Your task to perform on an android device: Open CNN.com Image 0: 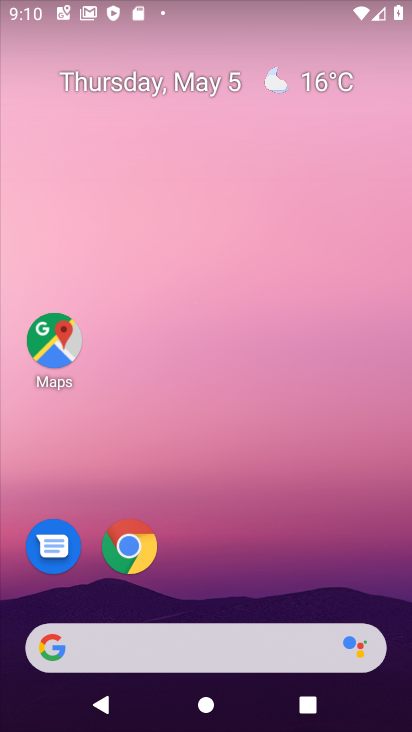
Step 0: click (122, 543)
Your task to perform on an android device: Open CNN.com Image 1: 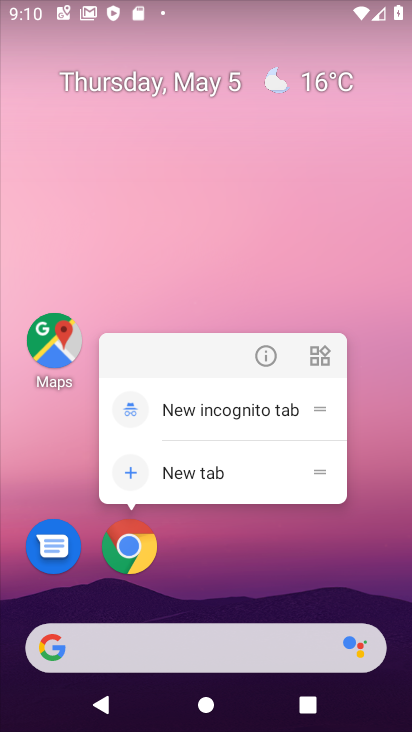
Step 1: click (144, 537)
Your task to perform on an android device: Open CNN.com Image 2: 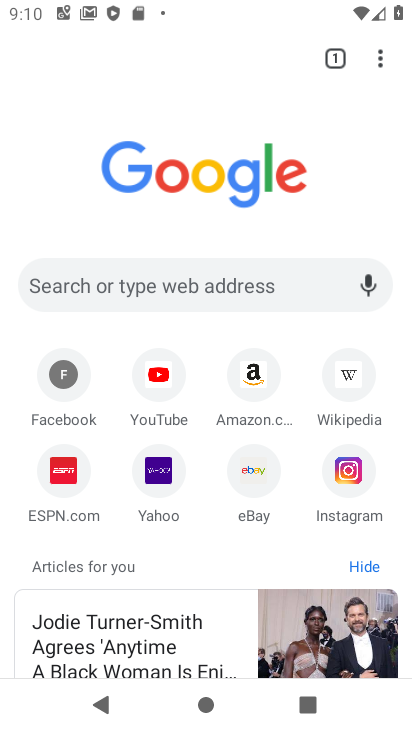
Step 2: click (163, 286)
Your task to perform on an android device: Open CNN.com Image 3: 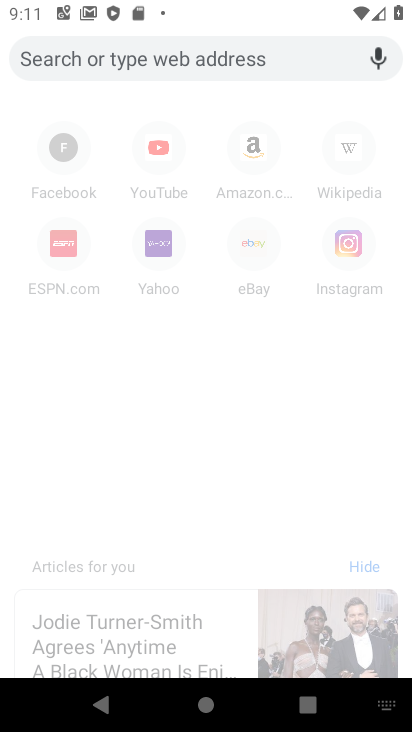
Step 3: type "CNN.com"
Your task to perform on an android device: Open CNN.com Image 4: 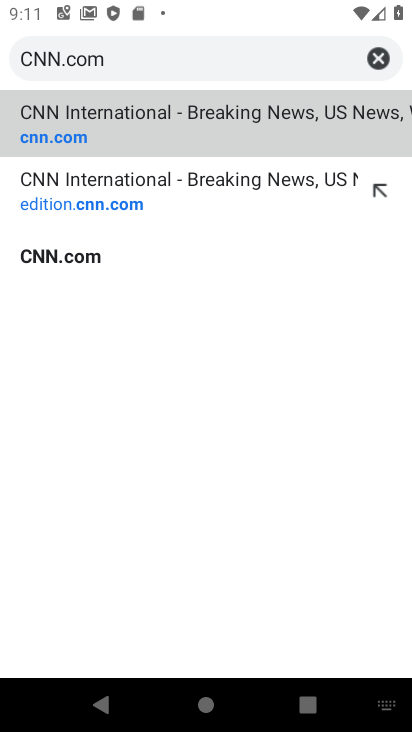
Step 4: click (81, 129)
Your task to perform on an android device: Open CNN.com Image 5: 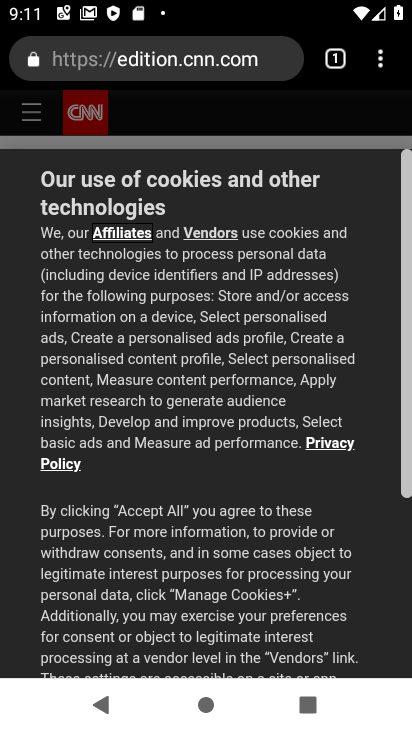
Step 5: task complete